Your task to perform on an android device: Is it going to rain this weekend? Image 0: 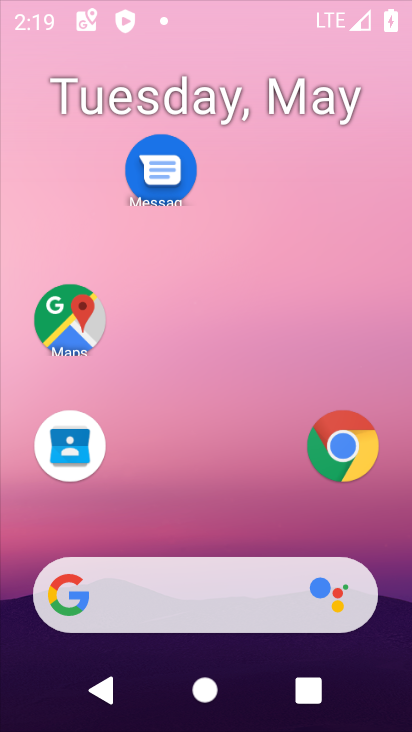
Step 0: click (156, 90)
Your task to perform on an android device: Is it going to rain this weekend? Image 1: 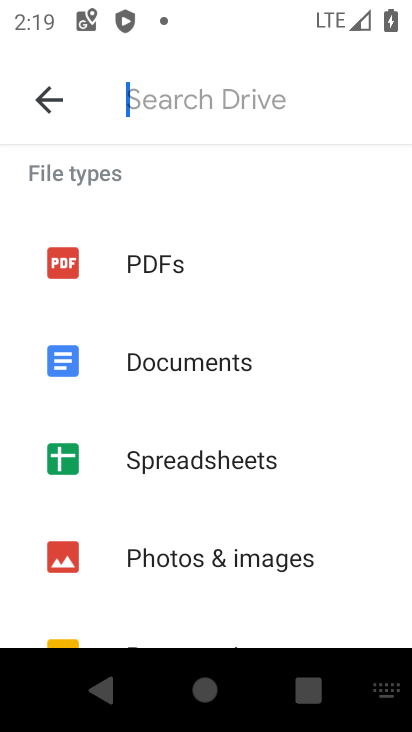
Step 1: press home button
Your task to perform on an android device: Is it going to rain this weekend? Image 2: 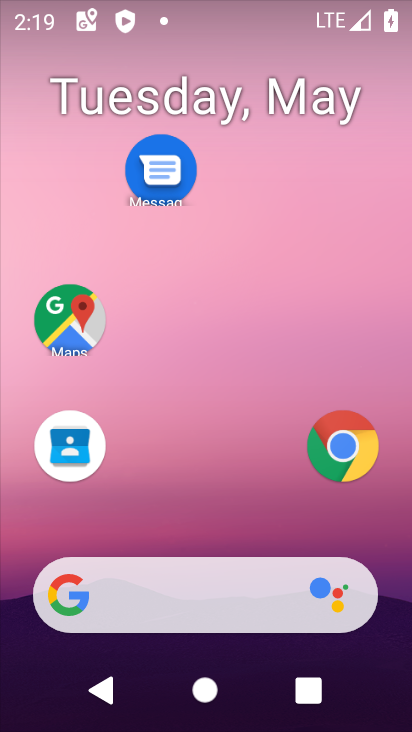
Step 2: click (182, 583)
Your task to perform on an android device: Is it going to rain this weekend? Image 3: 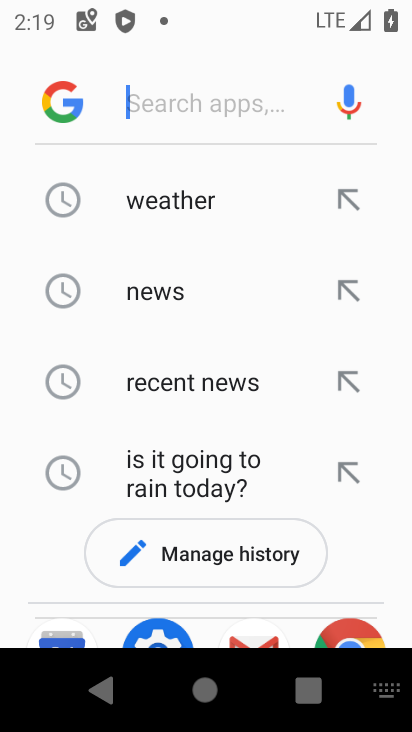
Step 3: click (179, 193)
Your task to perform on an android device: Is it going to rain this weekend? Image 4: 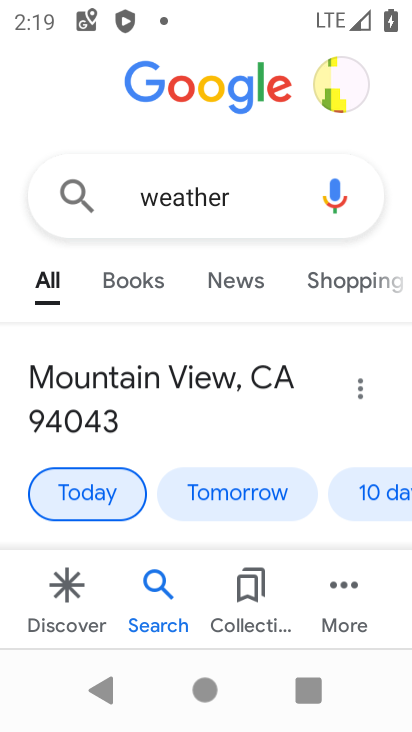
Step 4: click (362, 499)
Your task to perform on an android device: Is it going to rain this weekend? Image 5: 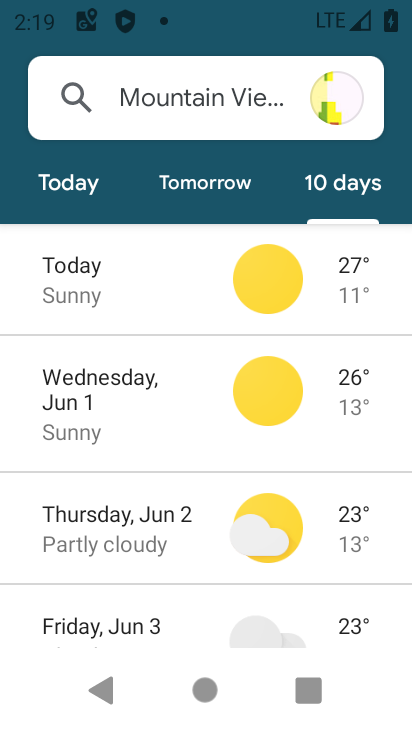
Step 5: task complete